Your task to perform on an android device: Open accessibility settings Image 0: 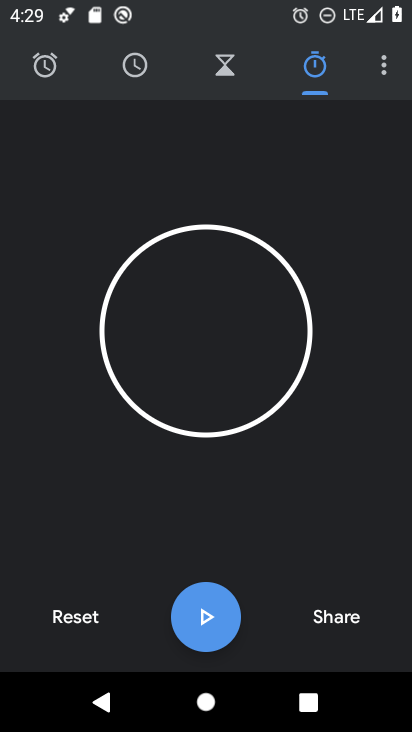
Step 0: press home button
Your task to perform on an android device: Open accessibility settings Image 1: 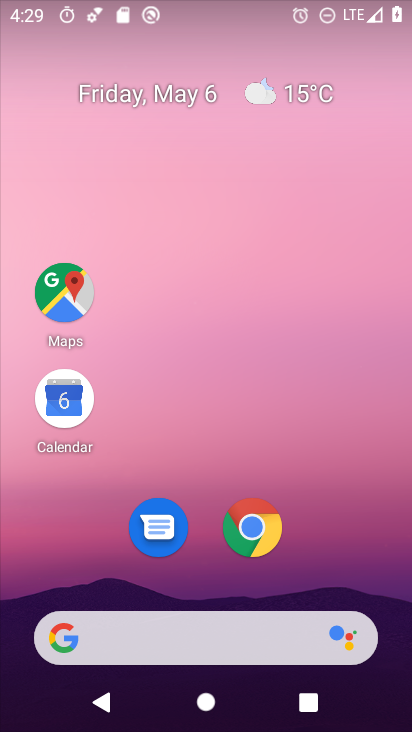
Step 1: drag from (349, 534) to (297, 77)
Your task to perform on an android device: Open accessibility settings Image 2: 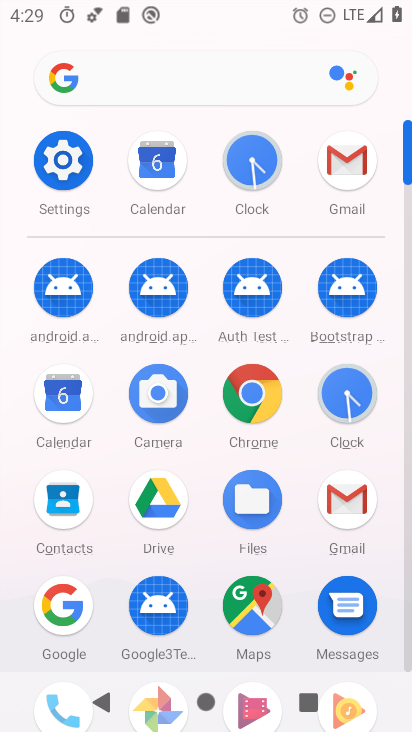
Step 2: click (79, 153)
Your task to perform on an android device: Open accessibility settings Image 3: 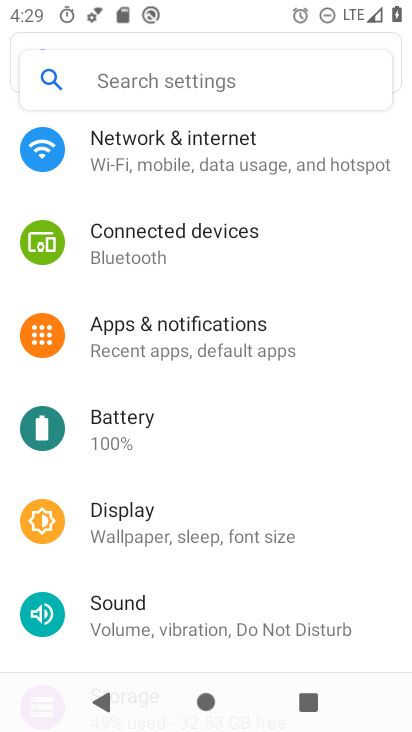
Step 3: drag from (222, 493) to (250, 130)
Your task to perform on an android device: Open accessibility settings Image 4: 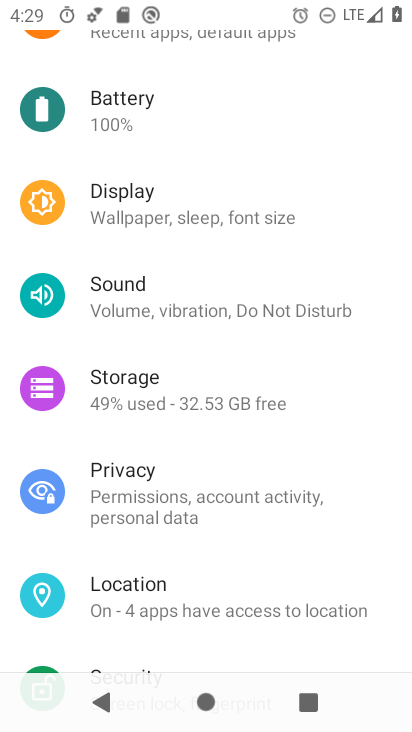
Step 4: drag from (221, 491) to (268, 130)
Your task to perform on an android device: Open accessibility settings Image 5: 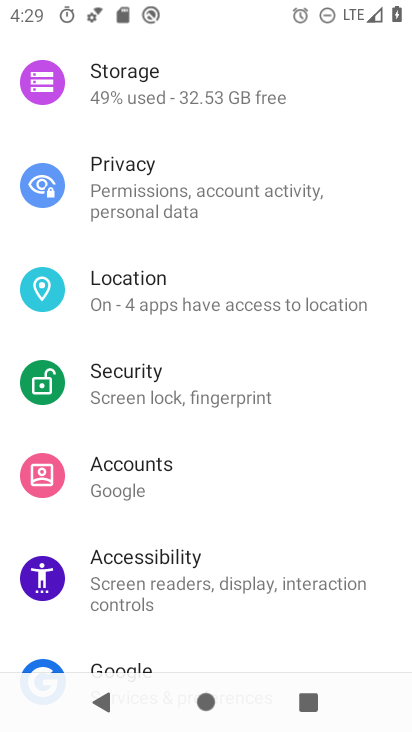
Step 5: drag from (183, 534) to (233, 308)
Your task to perform on an android device: Open accessibility settings Image 6: 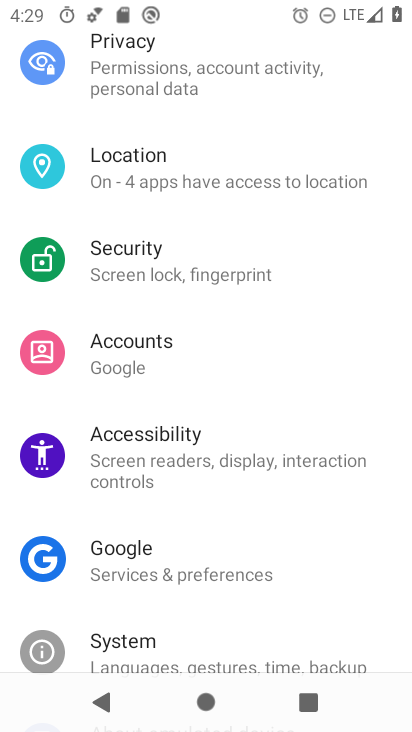
Step 6: click (124, 448)
Your task to perform on an android device: Open accessibility settings Image 7: 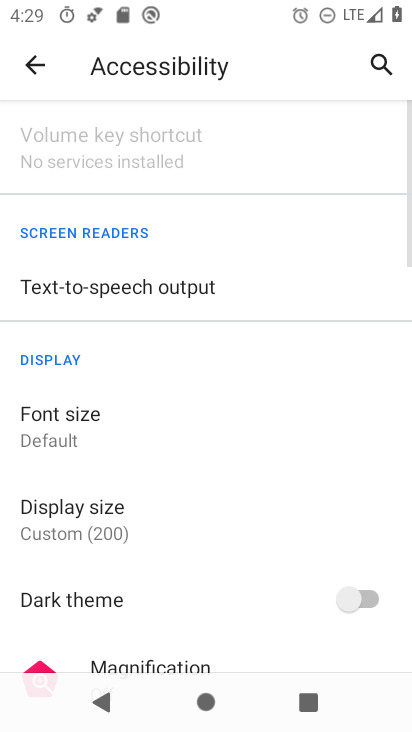
Step 7: task complete